Your task to perform on an android device: Search for the new ikea dresser Image 0: 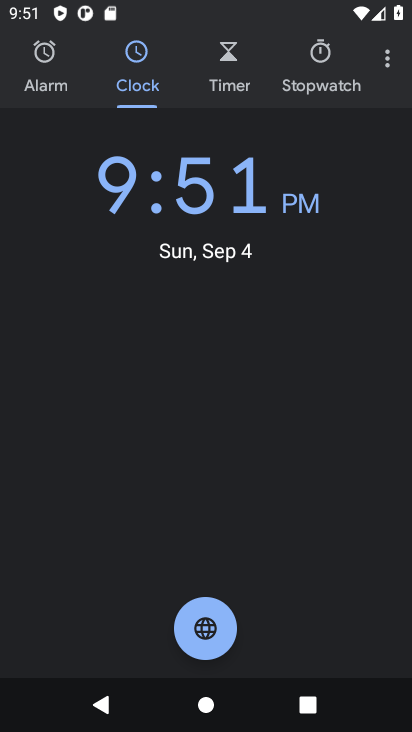
Step 0: press home button
Your task to perform on an android device: Search for the new ikea dresser Image 1: 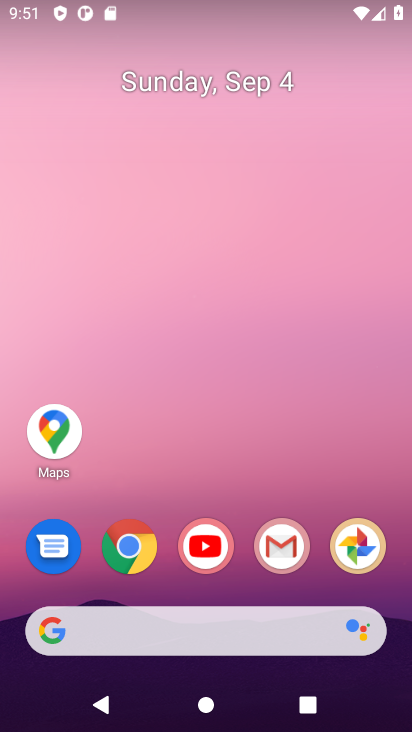
Step 1: click (142, 552)
Your task to perform on an android device: Search for the new ikea dresser Image 2: 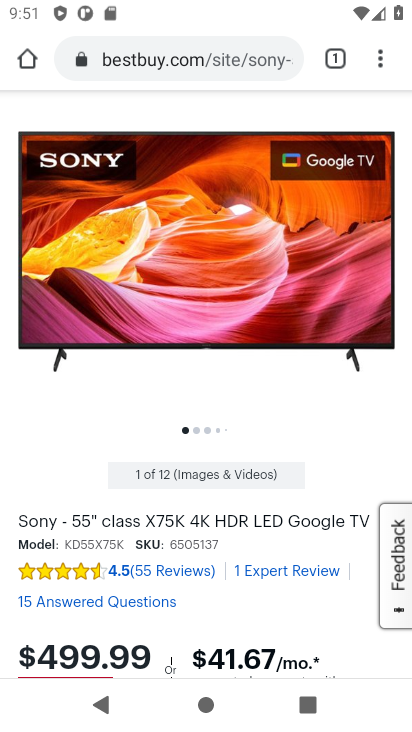
Step 2: click (277, 61)
Your task to perform on an android device: Search for the new ikea dresser Image 3: 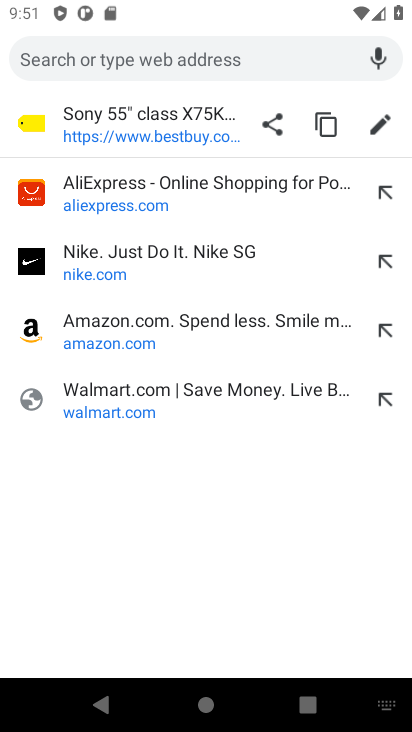
Step 3: type " new ikea dresser"
Your task to perform on an android device: Search for the new ikea dresser Image 4: 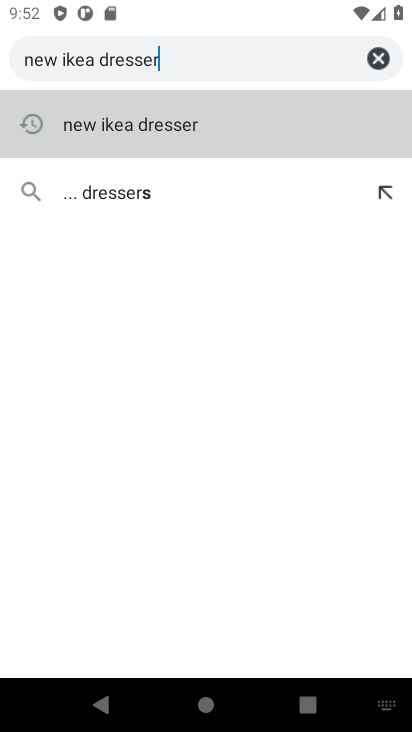
Step 4: click (123, 133)
Your task to perform on an android device: Search for the new ikea dresser Image 5: 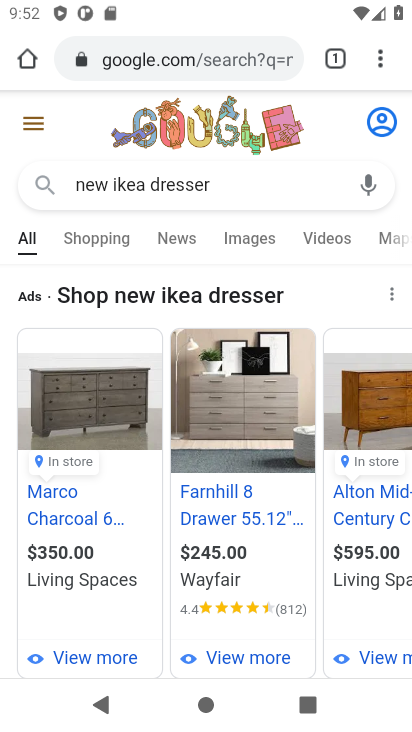
Step 5: drag from (242, 566) to (230, 375)
Your task to perform on an android device: Search for the new ikea dresser Image 6: 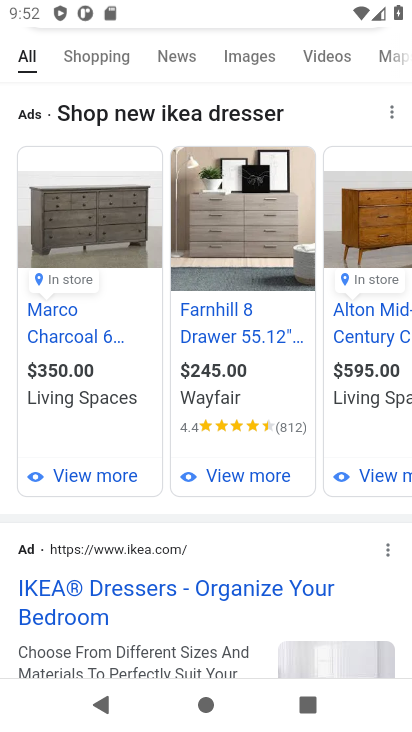
Step 6: drag from (184, 631) to (167, 379)
Your task to perform on an android device: Search for the new ikea dresser Image 7: 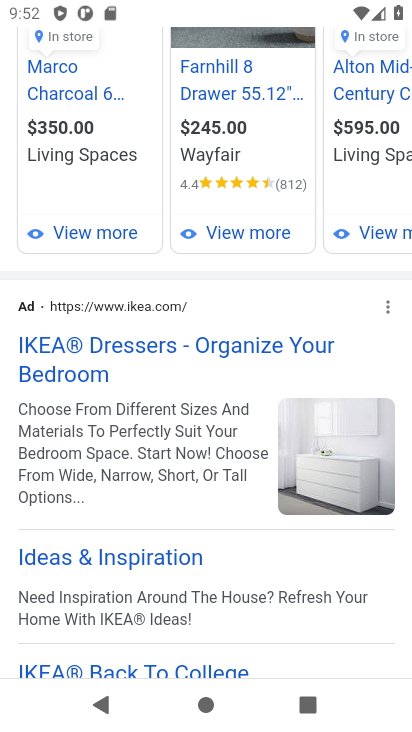
Step 7: click (128, 365)
Your task to perform on an android device: Search for the new ikea dresser Image 8: 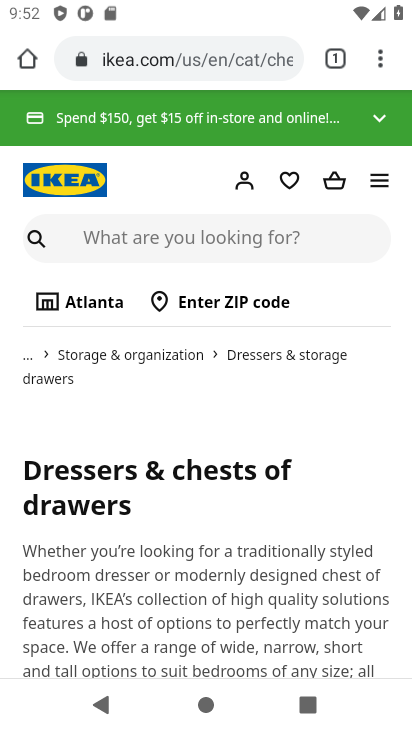
Step 8: drag from (201, 537) to (178, 275)
Your task to perform on an android device: Search for the new ikea dresser Image 9: 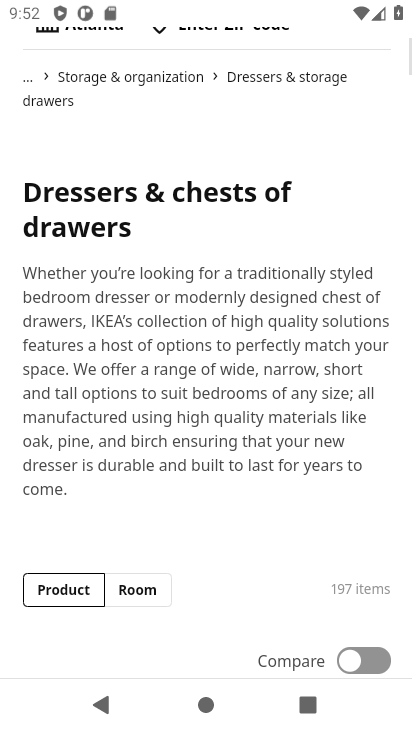
Step 9: drag from (200, 526) to (180, 209)
Your task to perform on an android device: Search for the new ikea dresser Image 10: 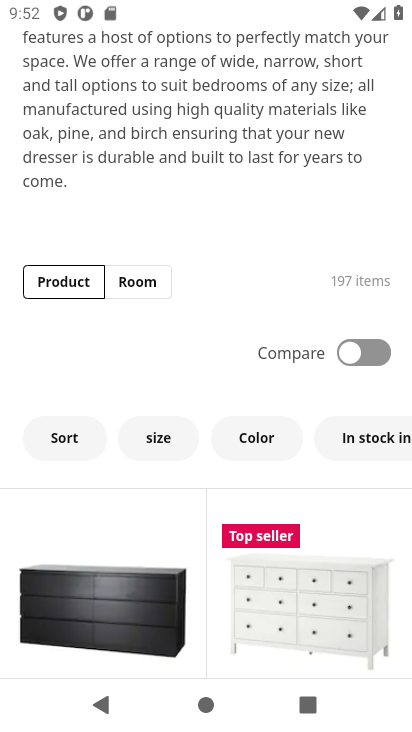
Step 10: click (143, 82)
Your task to perform on an android device: Search for the new ikea dresser Image 11: 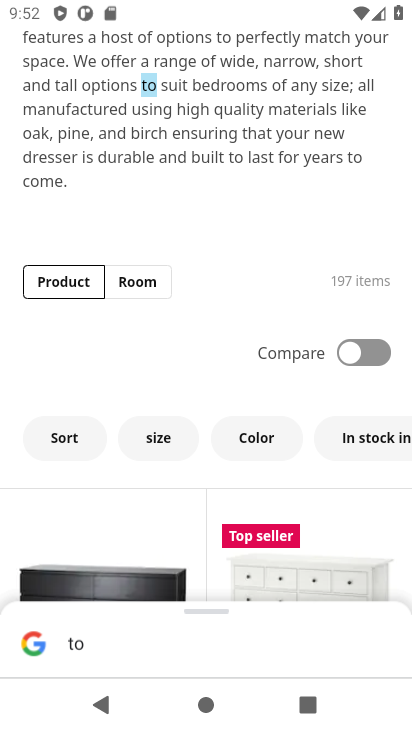
Step 11: task complete